Your task to perform on an android device: turn off javascript in the chrome app Image 0: 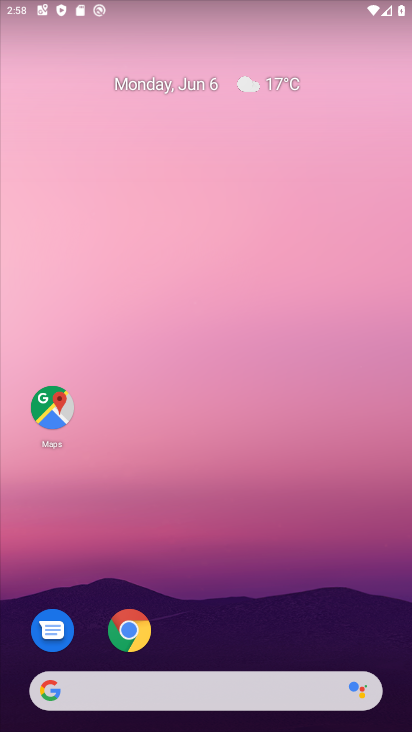
Step 0: click (125, 643)
Your task to perform on an android device: turn off javascript in the chrome app Image 1: 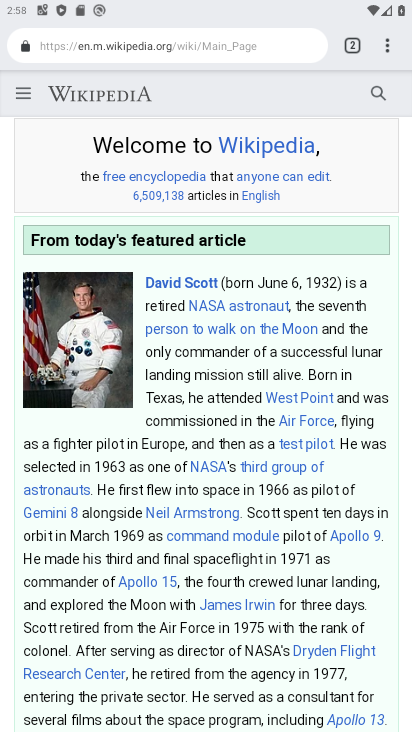
Step 1: drag from (390, 43) to (222, 545)
Your task to perform on an android device: turn off javascript in the chrome app Image 2: 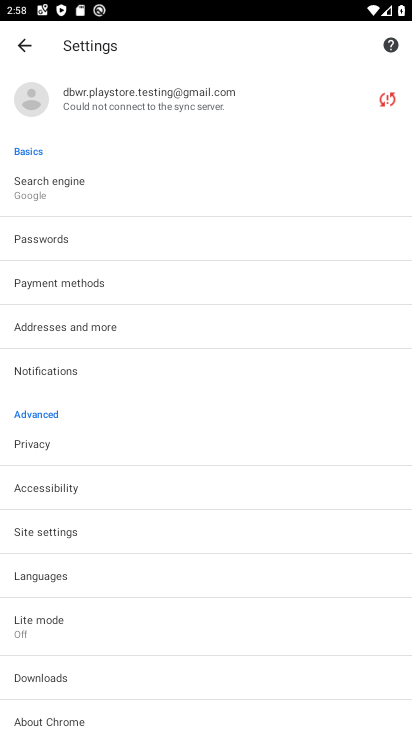
Step 2: click (59, 535)
Your task to perform on an android device: turn off javascript in the chrome app Image 3: 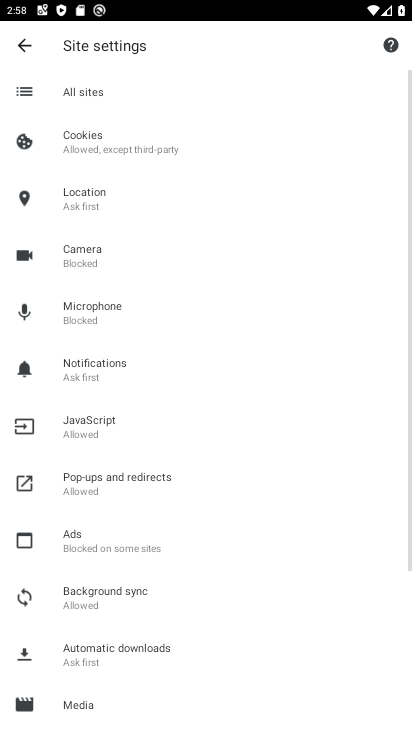
Step 3: click (112, 434)
Your task to perform on an android device: turn off javascript in the chrome app Image 4: 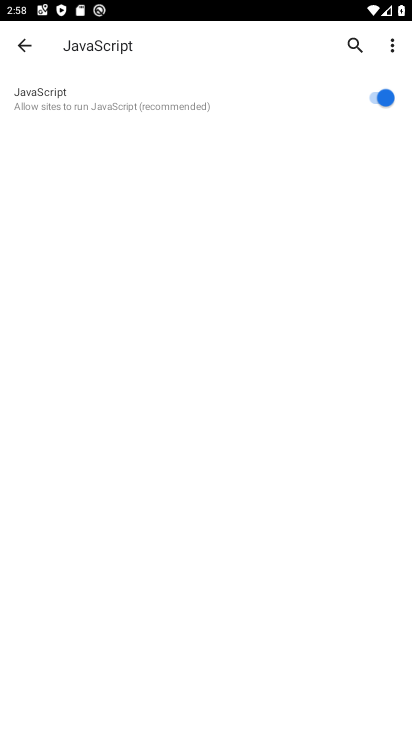
Step 4: click (380, 100)
Your task to perform on an android device: turn off javascript in the chrome app Image 5: 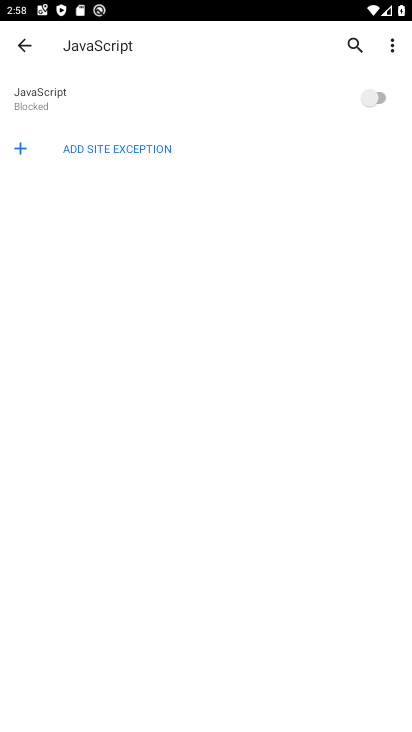
Step 5: task complete